Your task to perform on an android device: make emails show in primary in the gmail app Image 0: 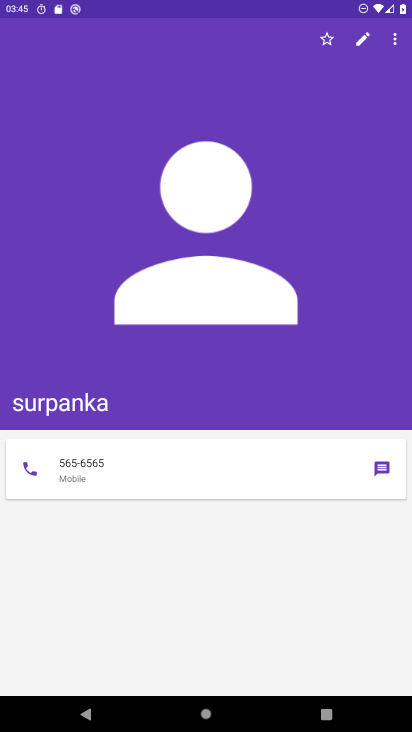
Step 0: press home button
Your task to perform on an android device: make emails show in primary in the gmail app Image 1: 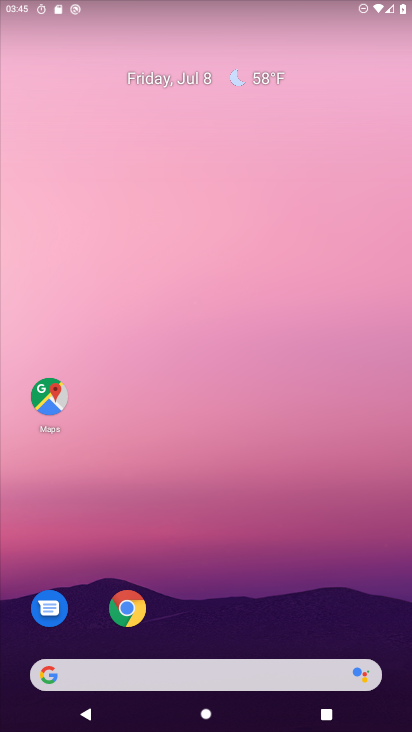
Step 1: click (221, 311)
Your task to perform on an android device: make emails show in primary in the gmail app Image 2: 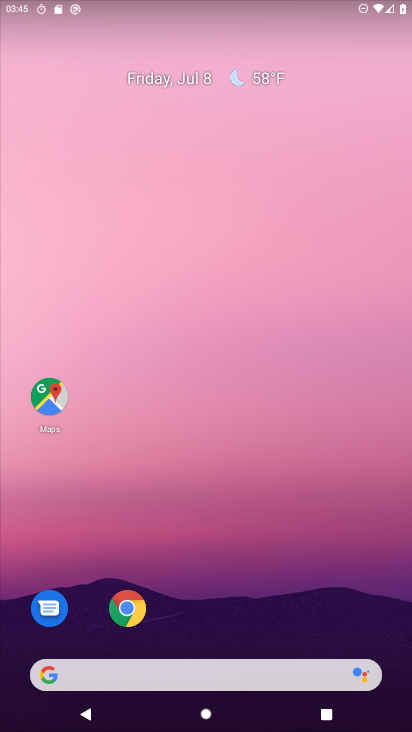
Step 2: drag from (251, 726) to (202, 228)
Your task to perform on an android device: make emails show in primary in the gmail app Image 3: 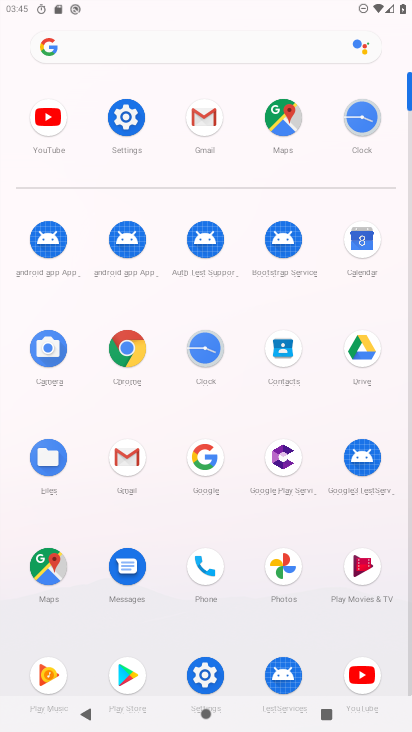
Step 3: click (124, 458)
Your task to perform on an android device: make emails show in primary in the gmail app Image 4: 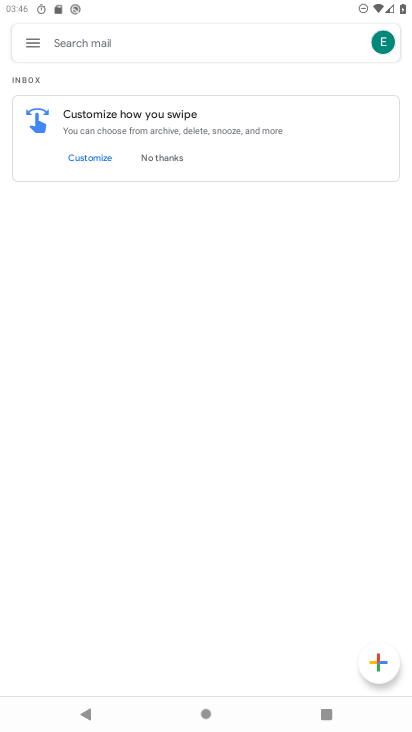
Step 4: click (33, 44)
Your task to perform on an android device: make emails show in primary in the gmail app Image 5: 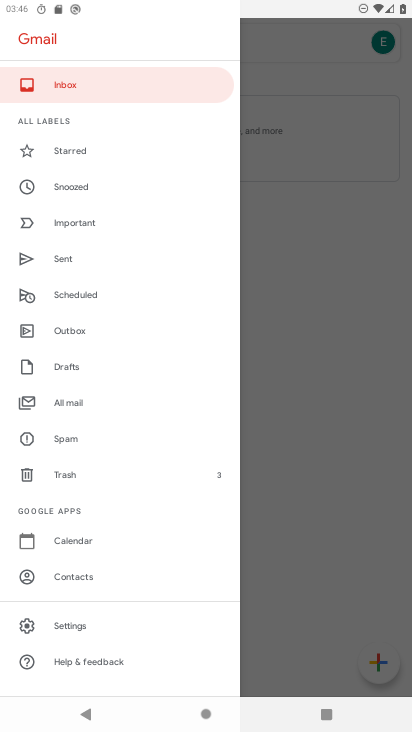
Step 5: click (70, 622)
Your task to perform on an android device: make emails show in primary in the gmail app Image 6: 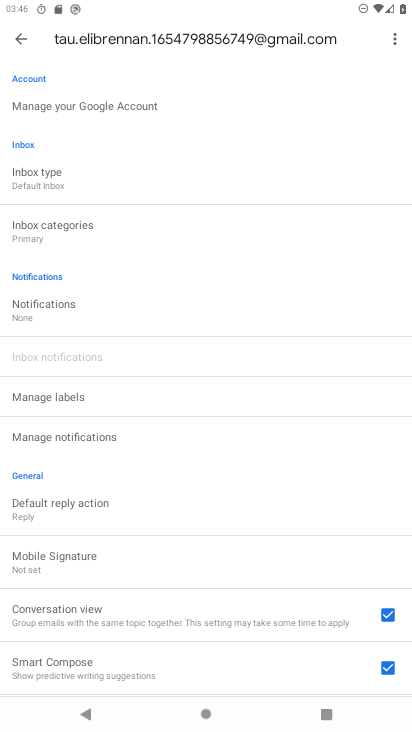
Step 6: task complete